Your task to perform on an android device: turn off data saver in the chrome app Image 0: 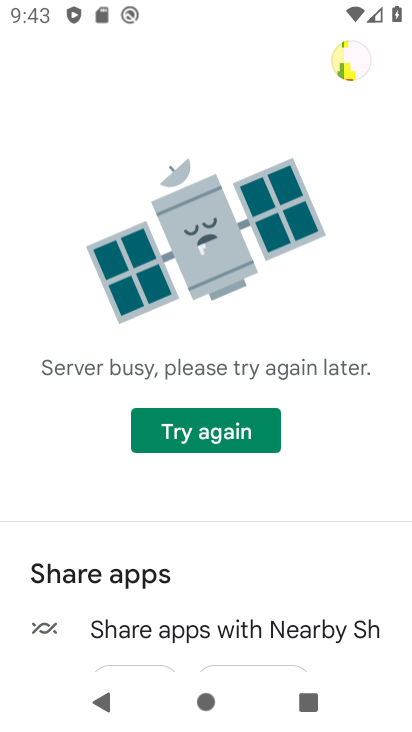
Step 0: press home button
Your task to perform on an android device: turn off data saver in the chrome app Image 1: 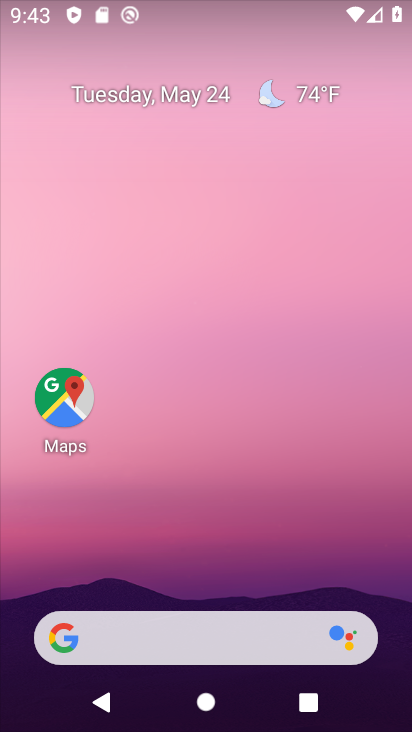
Step 1: drag from (191, 606) to (170, 1)
Your task to perform on an android device: turn off data saver in the chrome app Image 2: 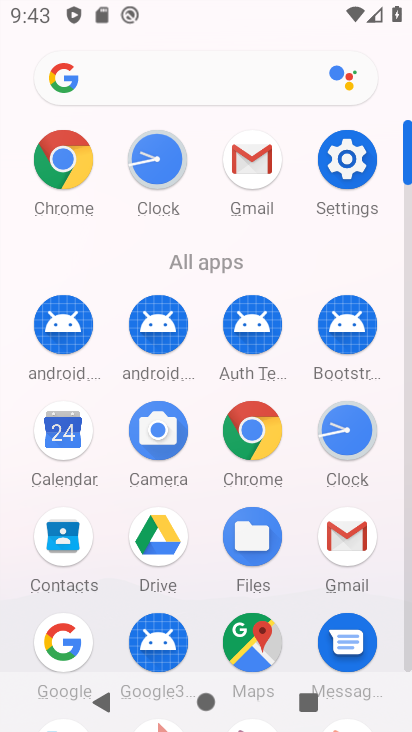
Step 2: click (239, 444)
Your task to perform on an android device: turn off data saver in the chrome app Image 3: 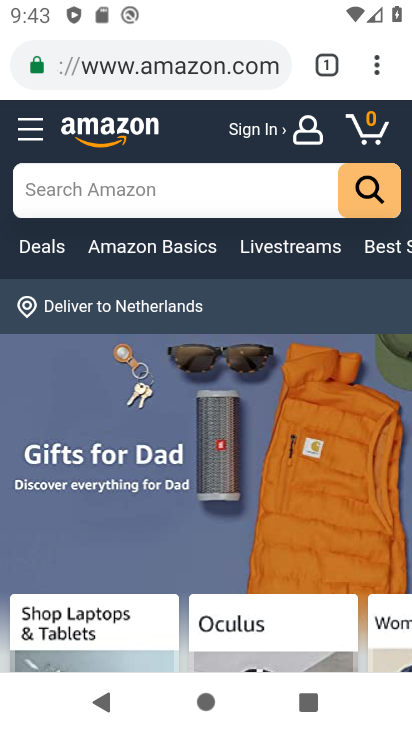
Step 3: click (389, 66)
Your task to perform on an android device: turn off data saver in the chrome app Image 4: 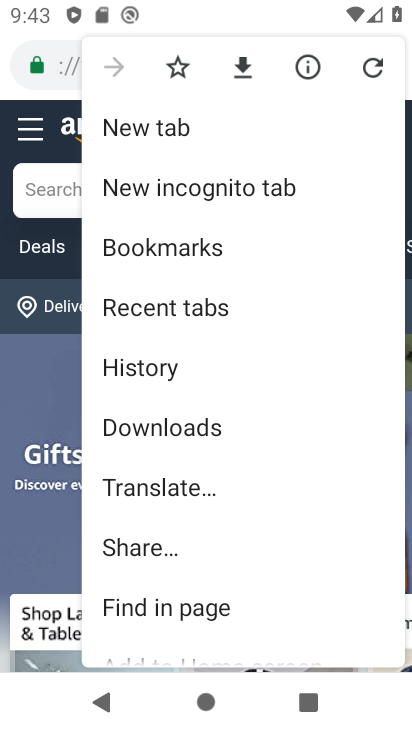
Step 4: drag from (339, 520) to (277, 84)
Your task to perform on an android device: turn off data saver in the chrome app Image 5: 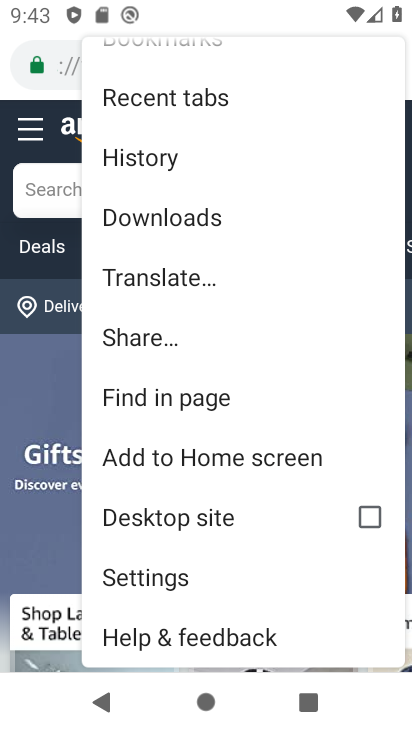
Step 5: click (163, 563)
Your task to perform on an android device: turn off data saver in the chrome app Image 6: 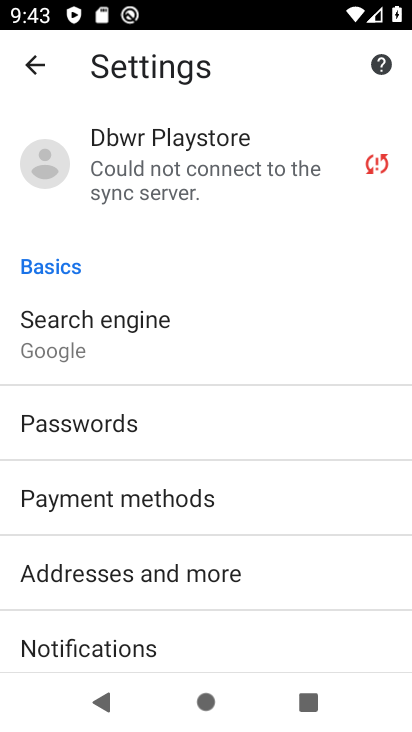
Step 6: drag from (163, 563) to (175, 14)
Your task to perform on an android device: turn off data saver in the chrome app Image 7: 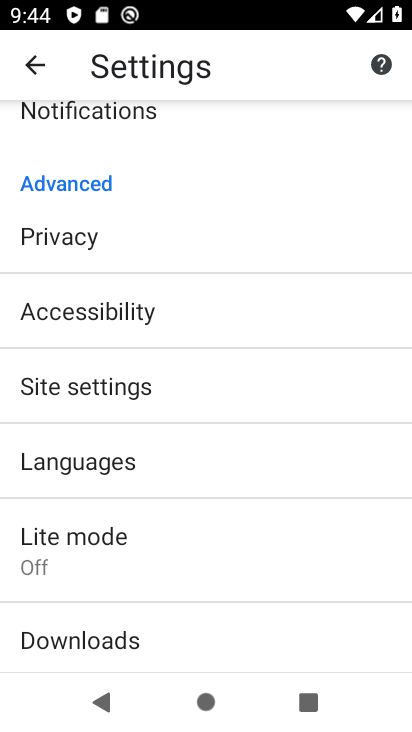
Step 7: click (76, 552)
Your task to perform on an android device: turn off data saver in the chrome app Image 8: 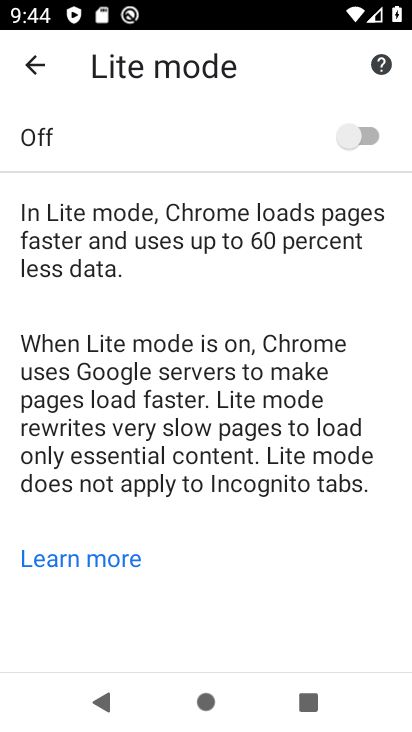
Step 8: task complete